Your task to perform on an android device: move an email to a new category in the gmail app Image 0: 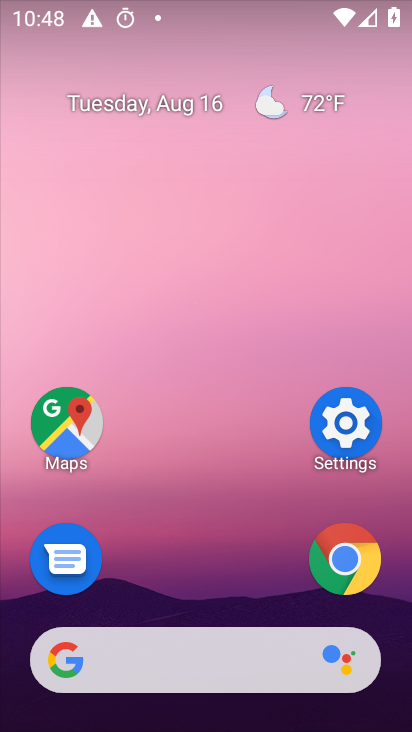
Step 0: drag from (215, 557) to (261, 157)
Your task to perform on an android device: move an email to a new category in the gmail app Image 1: 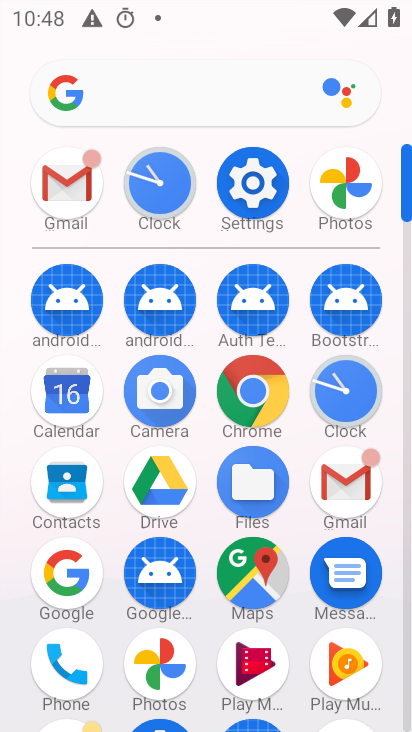
Step 1: click (69, 183)
Your task to perform on an android device: move an email to a new category in the gmail app Image 2: 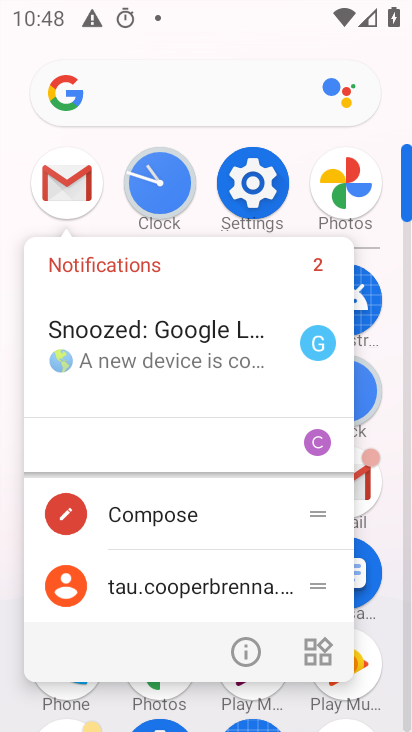
Step 2: click (69, 183)
Your task to perform on an android device: move an email to a new category in the gmail app Image 3: 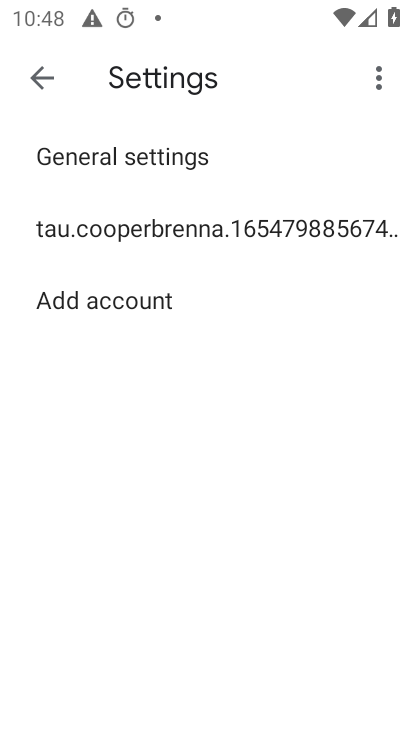
Step 3: press back button
Your task to perform on an android device: move an email to a new category in the gmail app Image 4: 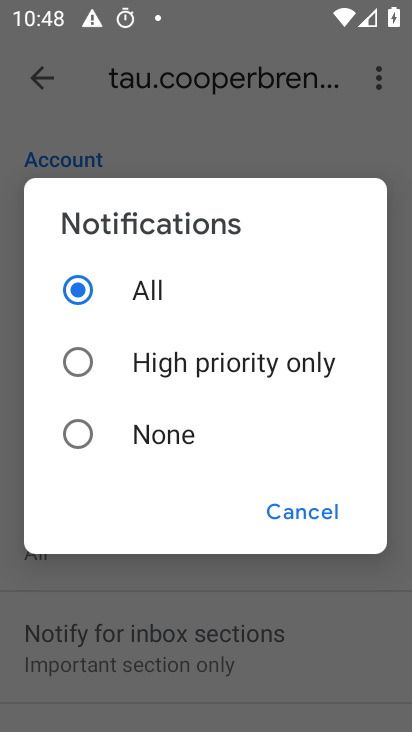
Step 4: press back button
Your task to perform on an android device: move an email to a new category in the gmail app Image 5: 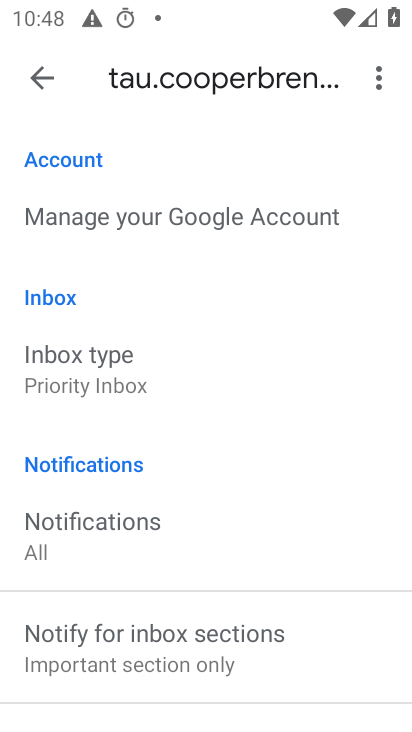
Step 5: press back button
Your task to perform on an android device: move an email to a new category in the gmail app Image 6: 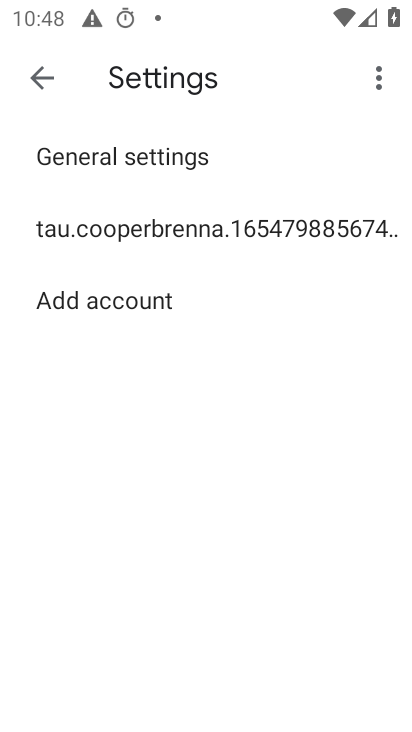
Step 6: press back button
Your task to perform on an android device: move an email to a new category in the gmail app Image 7: 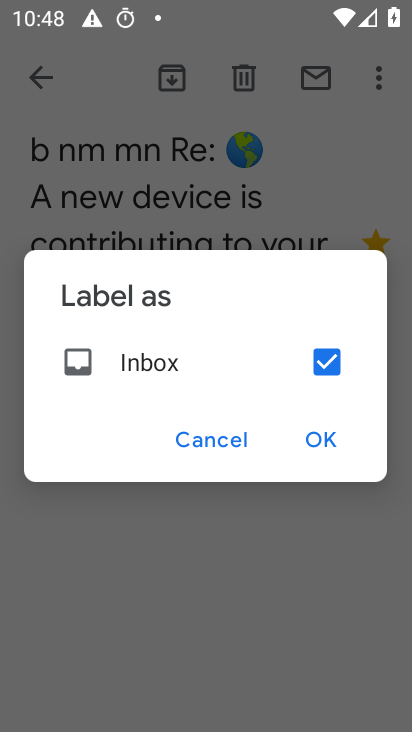
Step 7: click (331, 451)
Your task to perform on an android device: move an email to a new category in the gmail app Image 8: 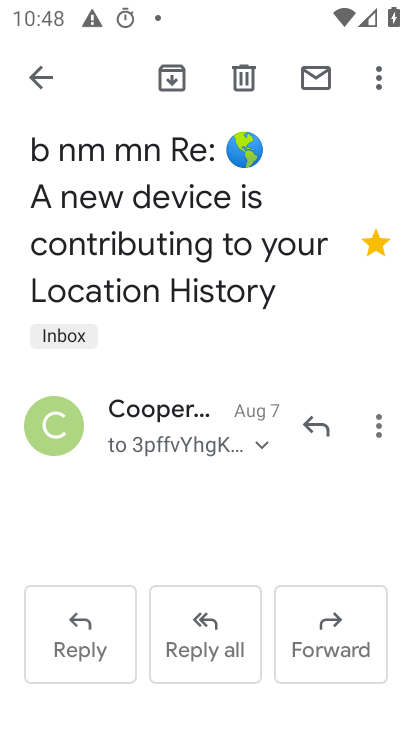
Step 8: press back button
Your task to perform on an android device: move an email to a new category in the gmail app Image 9: 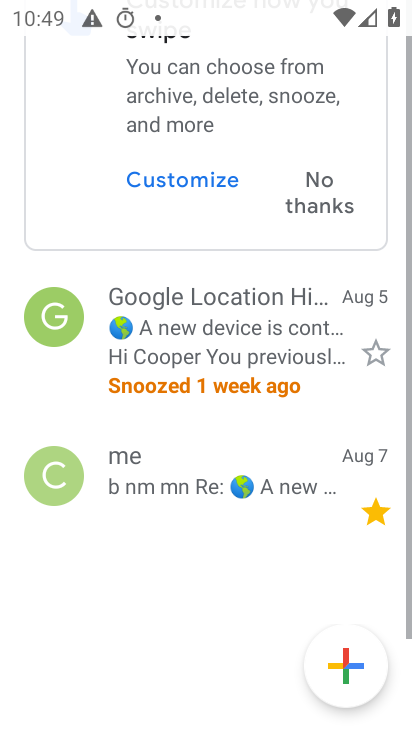
Step 9: drag from (187, 420) to (175, 619)
Your task to perform on an android device: move an email to a new category in the gmail app Image 10: 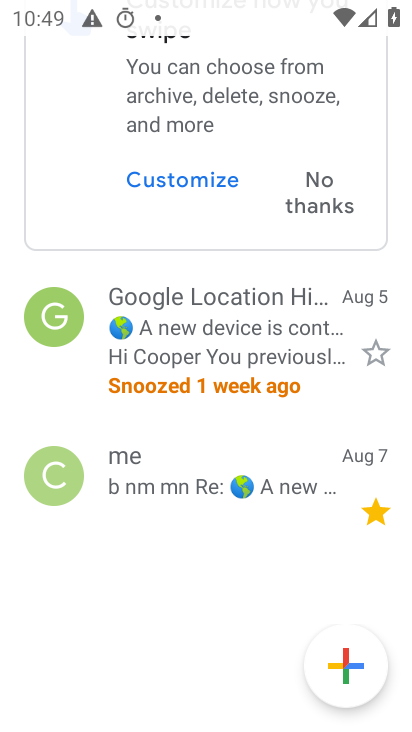
Step 10: drag from (87, 164) to (157, 621)
Your task to perform on an android device: move an email to a new category in the gmail app Image 11: 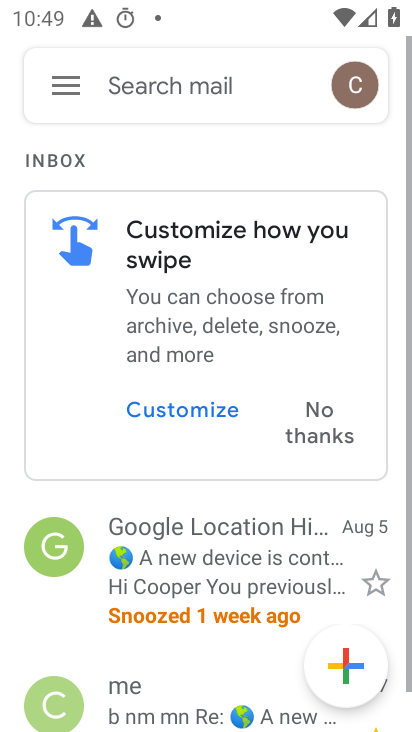
Step 11: click (70, 77)
Your task to perform on an android device: move an email to a new category in the gmail app Image 12: 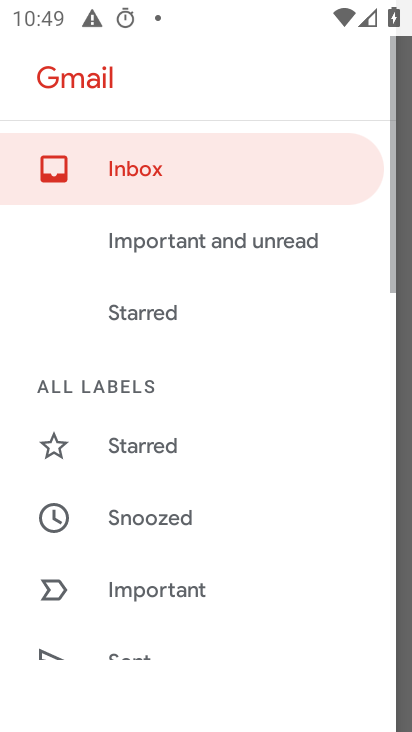
Step 12: drag from (197, 612) to (197, 128)
Your task to perform on an android device: move an email to a new category in the gmail app Image 13: 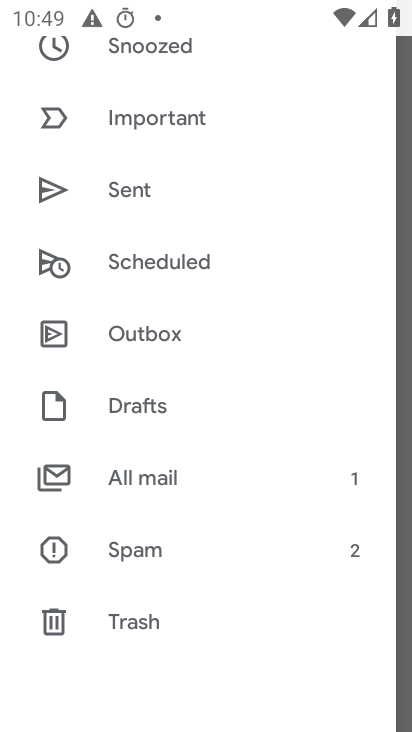
Step 13: drag from (190, 642) to (204, 184)
Your task to perform on an android device: move an email to a new category in the gmail app Image 14: 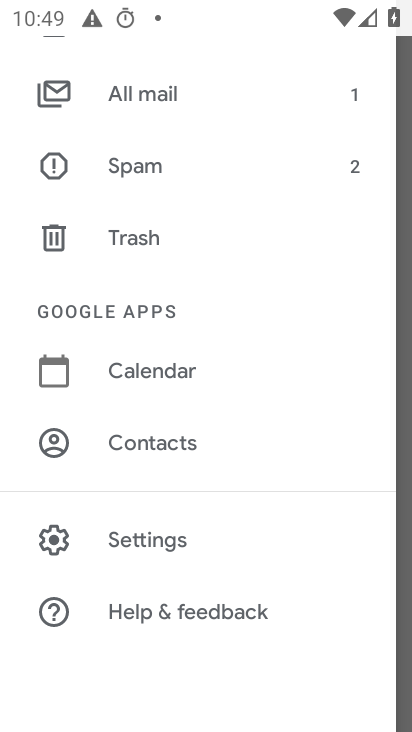
Step 14: click (148, 92)
Your task to perform on an android device: move an email to a new category in the gmail app Image 15: 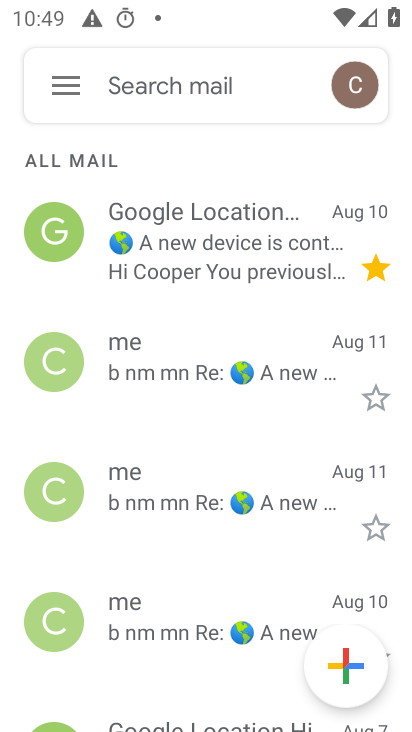
Step 15: click (63, 230)
Your task to perform on an android device: move an email to a new category in the gmail app Image 16: 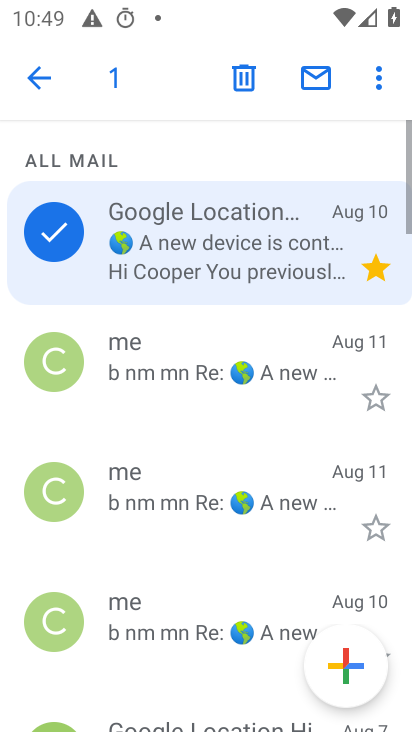
Step 16: click (378, 69)
Your task to perform on an android device: move an email to a new category in the gmail app Image 17: 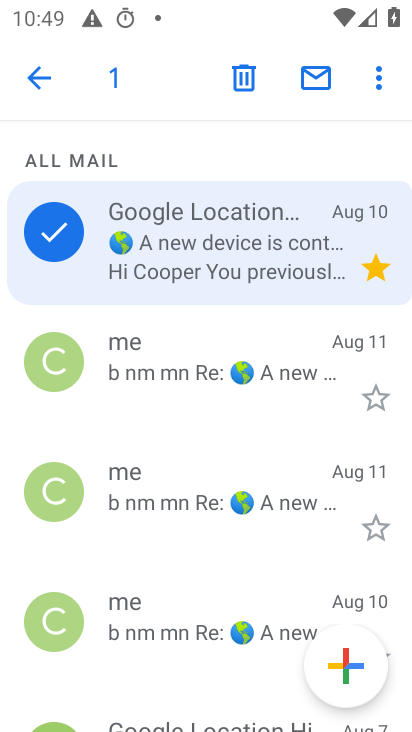
Step 17: click (377, 78)
Your task to perform on an android device: move an email to a new category in the gmail app Image 18: 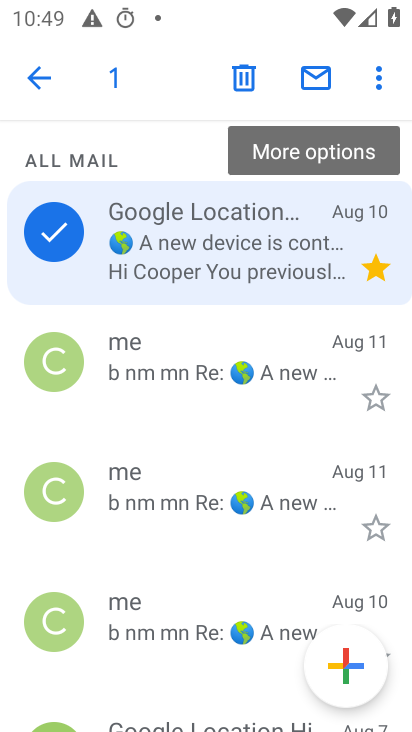
Step 18: click (378, 83)
Your task to perform on an android device: move an email to a new category in the gmail app Image 19: 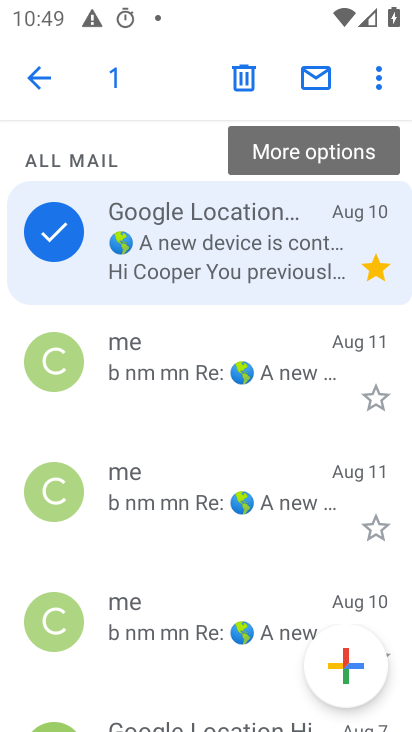
Step 19: click (381, 77)
Your task to perform on an android device: move an email to a new category in the gmail app Image 20: 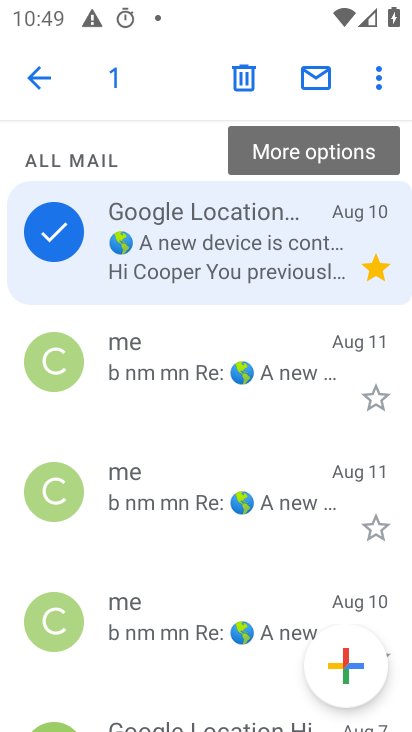
Step 20: click (381, 79)
Your task to perform on an android device: move an email to a new category in the gmail app Image 21: 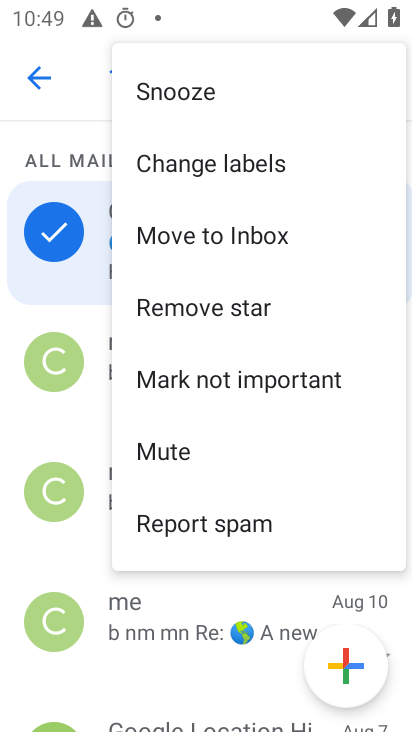
Step 21: click (262, 239)
Your task to perform on an android device: move an email to a new category in the gmail app Image 22: 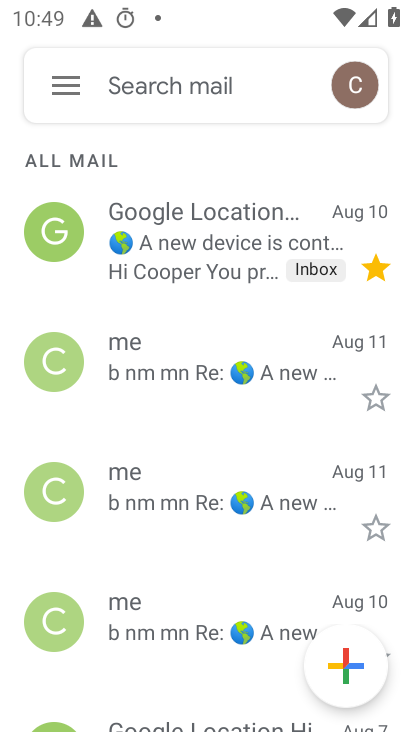
Step 22: task complete